Your task to perform on an android device: Open Amazon Image 0: 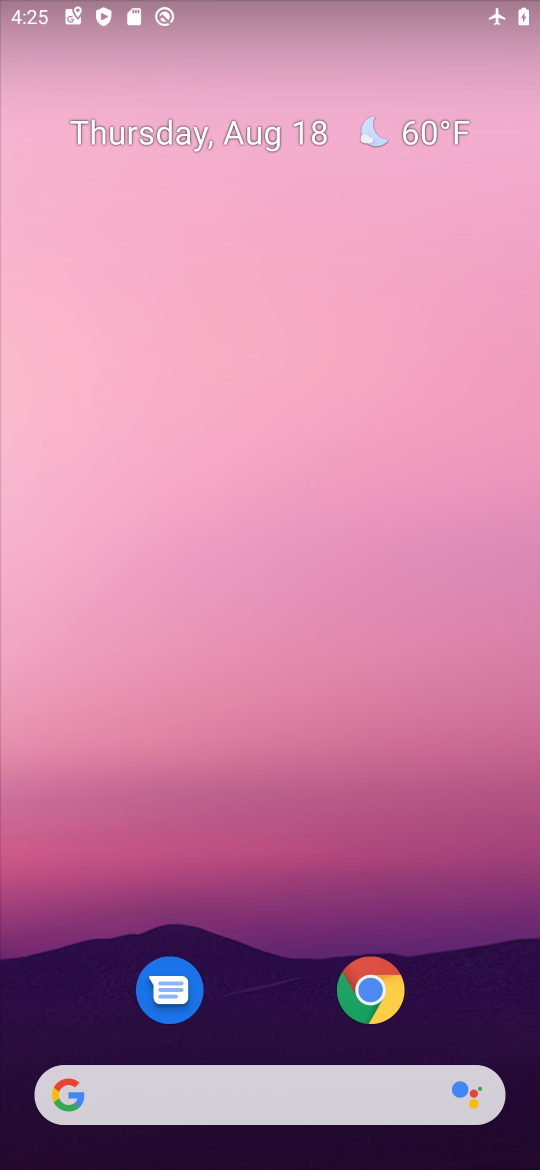
Step 0: press home button
Your task to perform on an android device: Open Amazon Image 1: 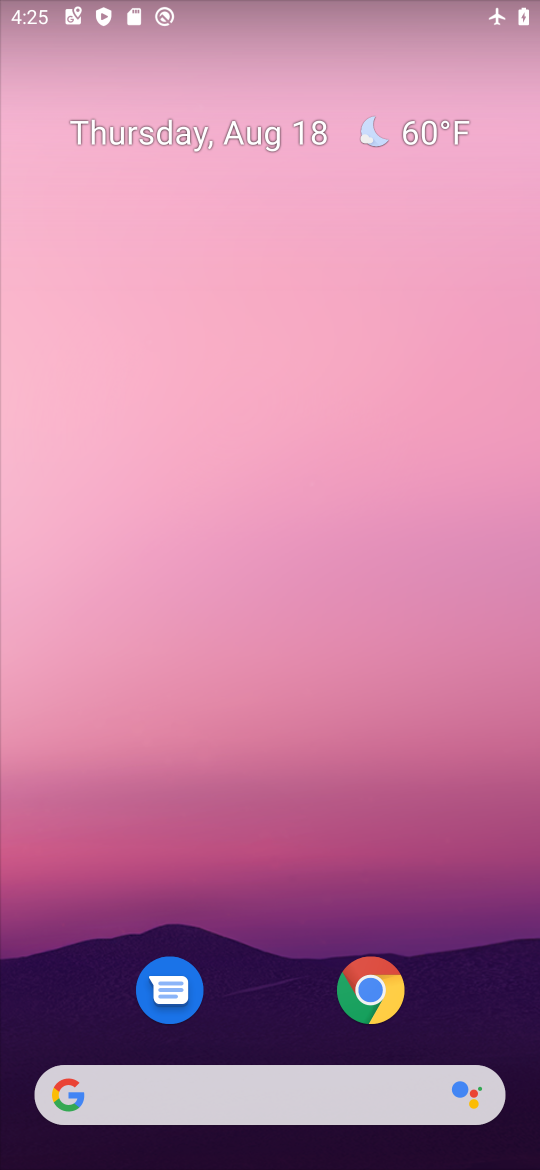
Step 1: press home button
Your task to perform on an android device: Open Amazon Image 2: 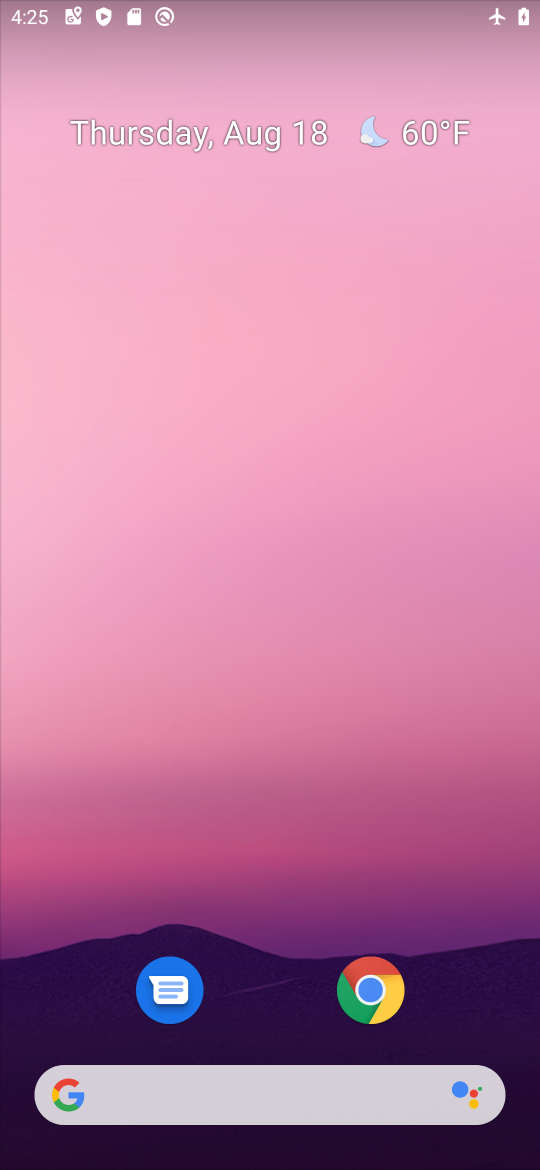
Step 2: drag from (283, 871) to (453, 38)
Your task to perform on an android device: Open Amazon Image 3: 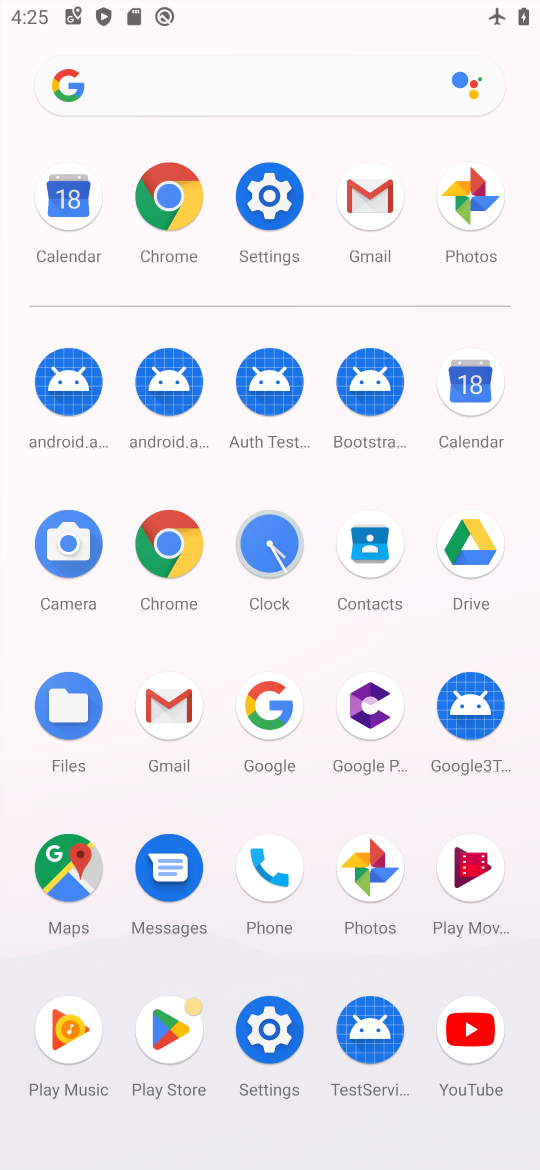
Step 3: click (181, 527)
Your task to perform on an android device: Open Amazon Image 4: 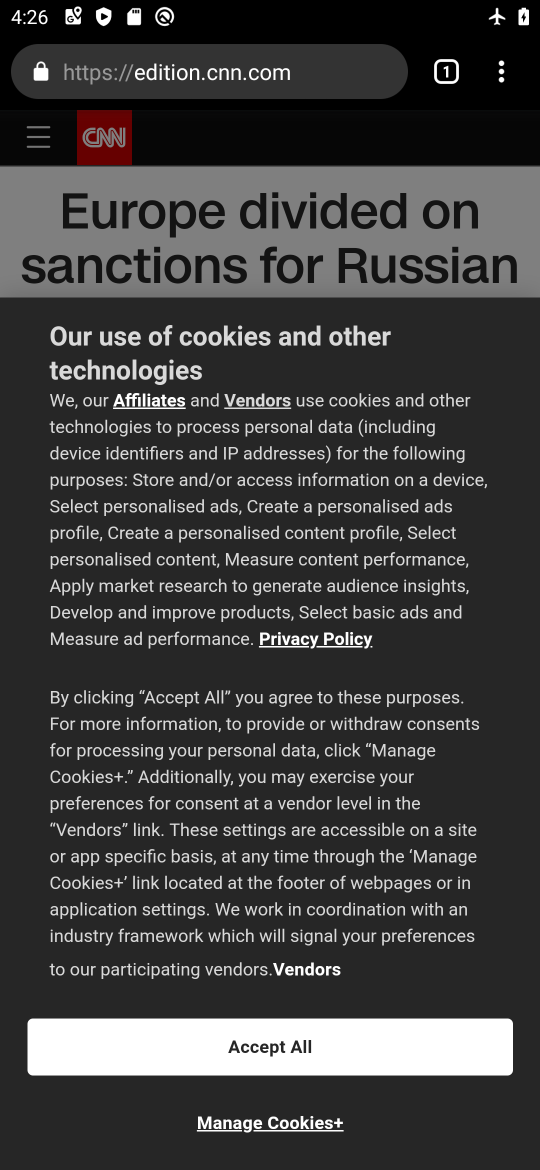
Step 4: click (265, 60)
Your task to perform on an android device: Open Amazon Image 5: 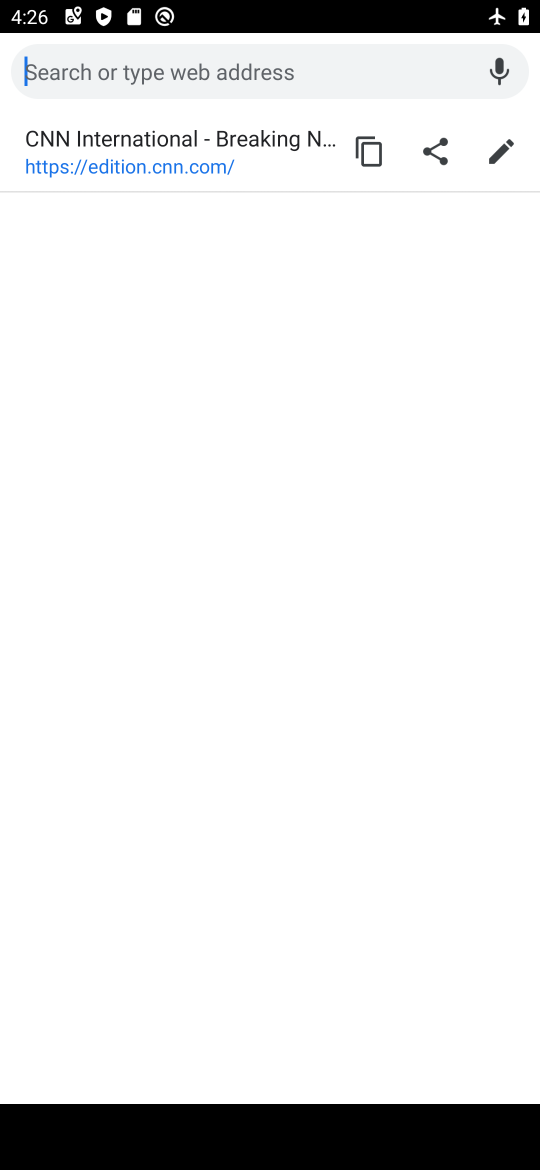
Step 5: type "amazon"
Your task to perform on an android device: Open Amazon Image 6: 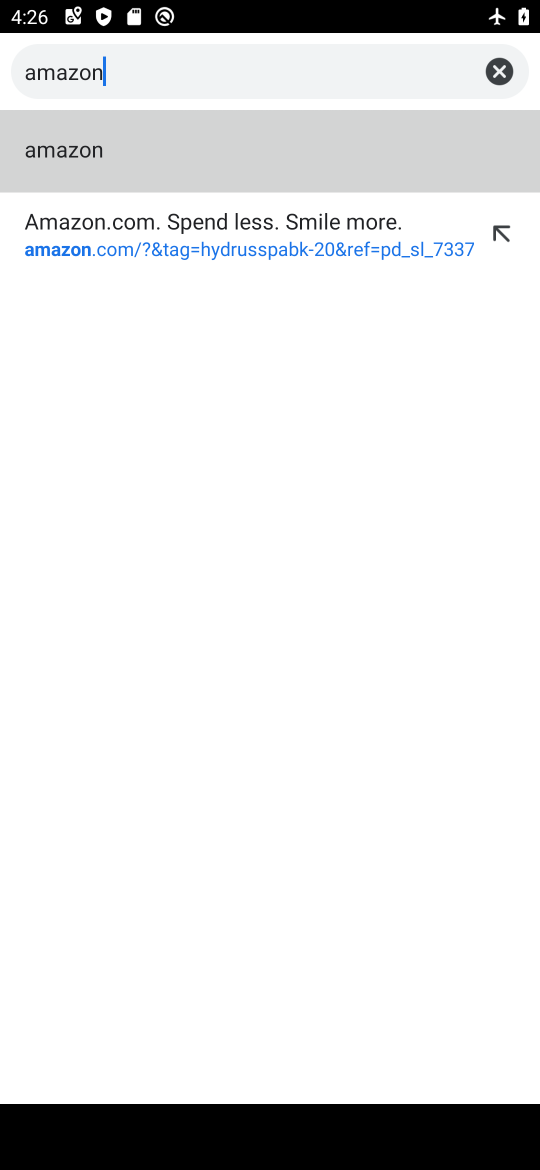
Step 6: click (71, 252)
Your task to perform on an android device: Open Amazon Image 7: 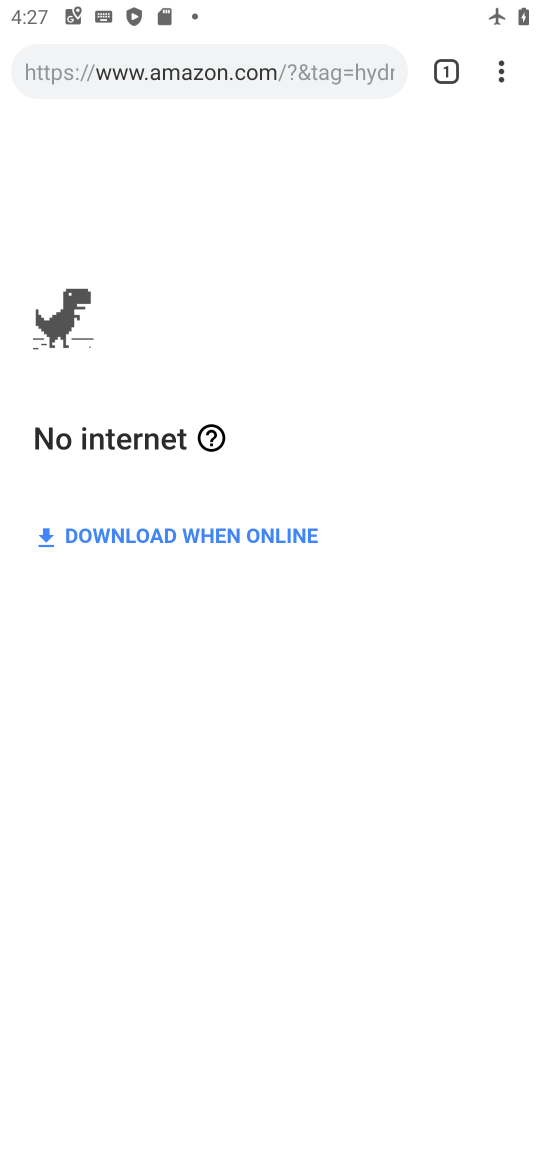
Step 7: task complete